Your task to perform on an android device: Open calendar and show me the third week of next month Image 0: 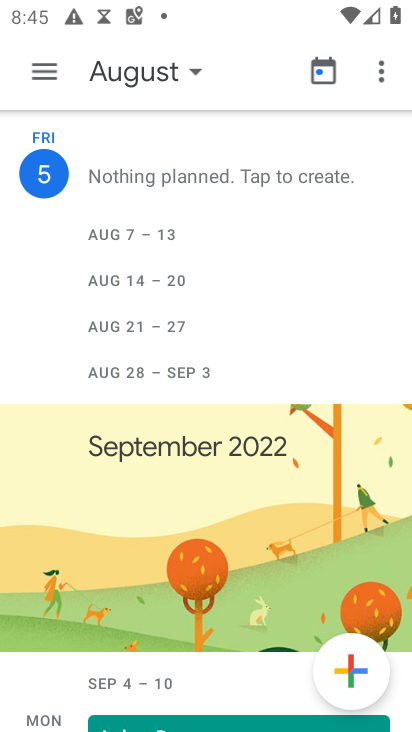
Step 0: press home button
Your task to perform on an android device: Open calendar and show me the third week of next month Image 1: 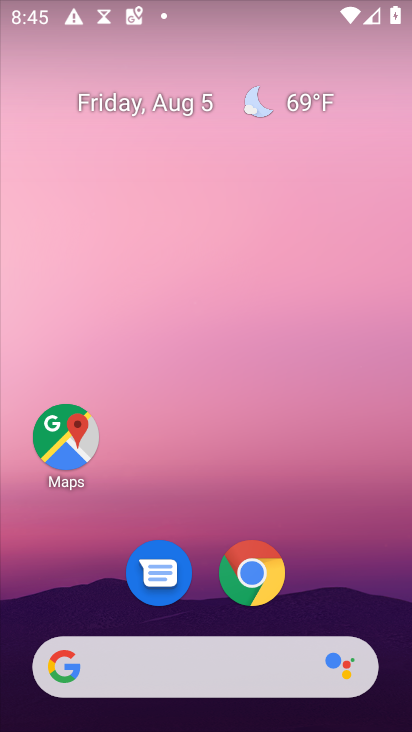
Step 1: drag from (215, 663) to (229, 173)
Your task to perform on an android device: Open calendar and show me the third week of next month Image 2: 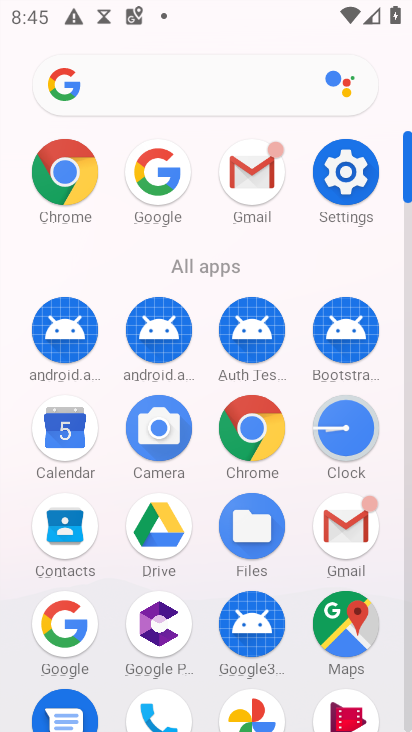
Step 2: click (68, 432)
Your task to perform on an android device: Open calendar and show me the third week of next month Image 3: 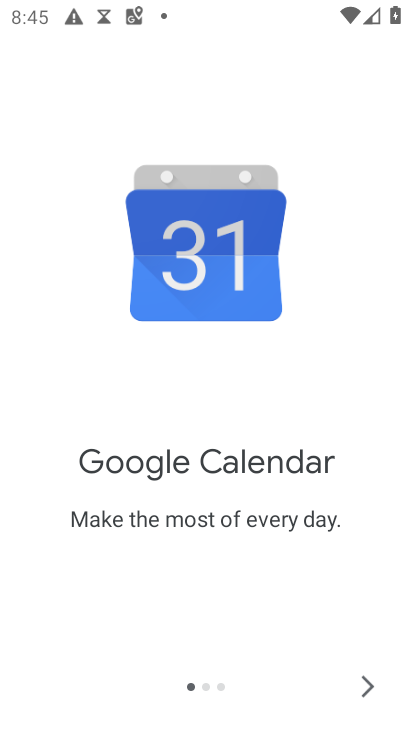
Step 3: click (371, 687)
Your task to perform on an android device: Open calendar and show me the third week of next month Image 4: 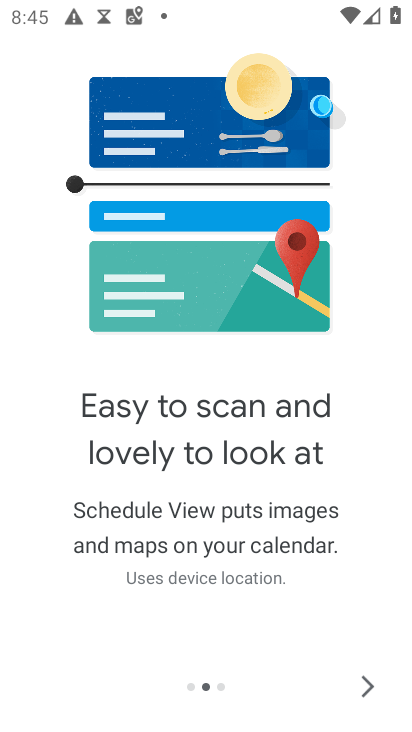
Step 4: click (371, 687)
Your task to perform on an android device: Open calendar and show me the third week of next month Image 5: 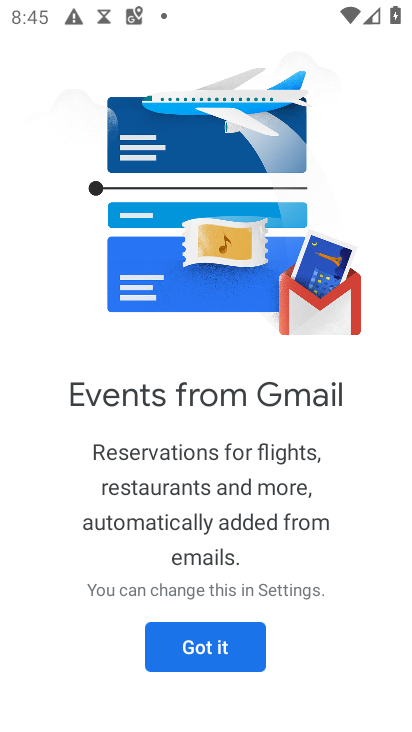
Step 5: click (209, 641)
Your task to perform on an android device: Open calendar and show me the third week of next month Image 6: 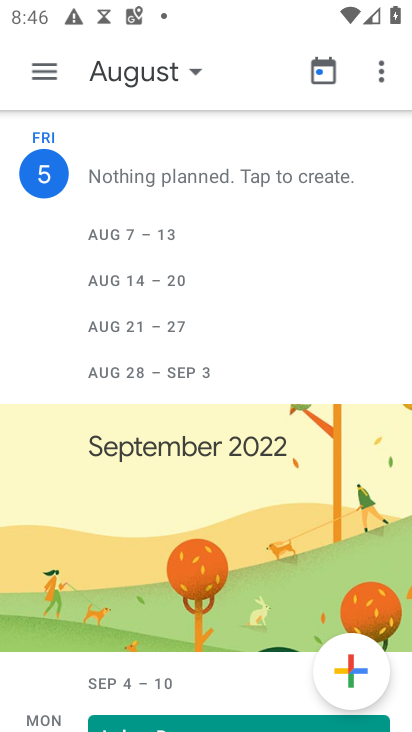
Step 6: click (200, 72)
Your task to perform on an android device: Open calendar and show me the third week of next month Image 7: 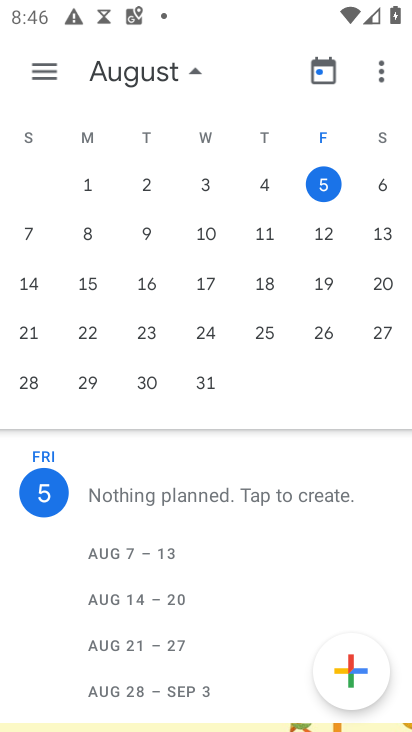
Step 7: drag from (372, 308) to (5, 362)
Your task to perform on an android device: Open calendar and show me the third week of next month Image 8: 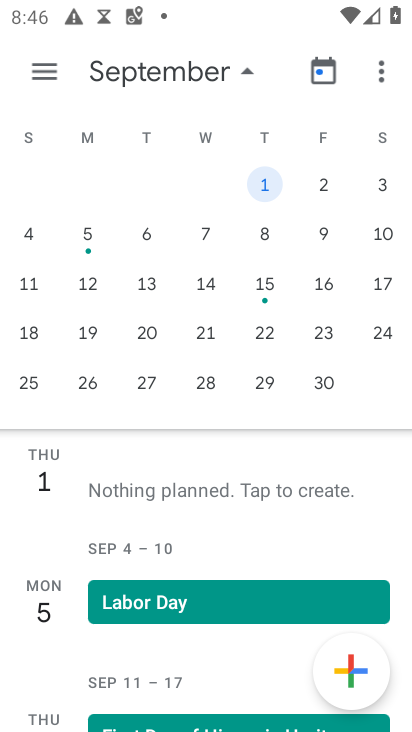
Step 8: click (96, 334)
Your task to perform on an android device: Open calendar and show me the third week of next month Image 9: 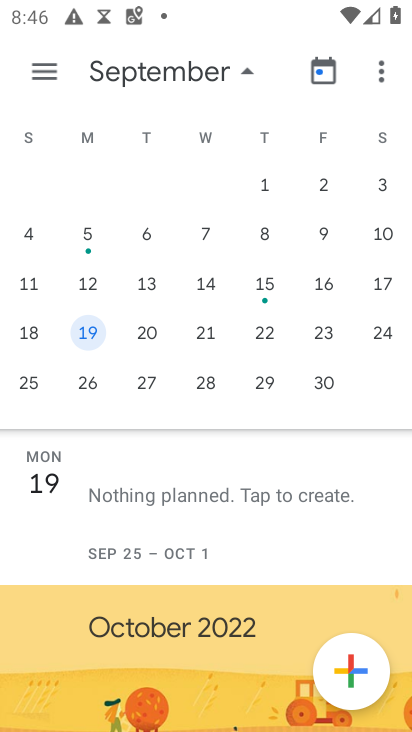
Step 9: click (47, 75)
Your task to perform on an android device: Open calendar and show me the third week of next month Image 10: 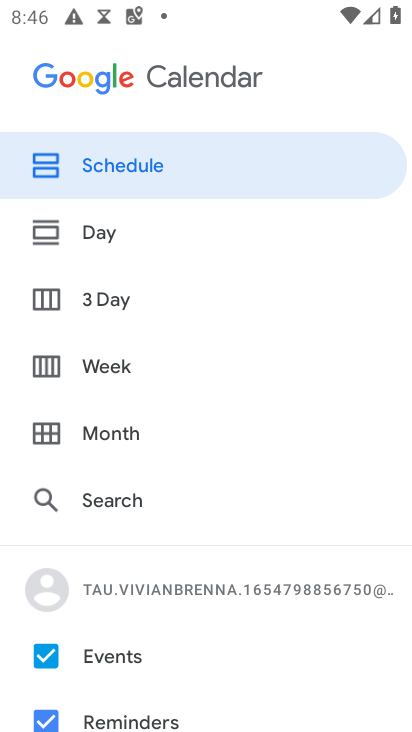
Step 10: click (98, 365)
Your task to perform on an android device: Open calendar and show me the third week of next month Image 11: 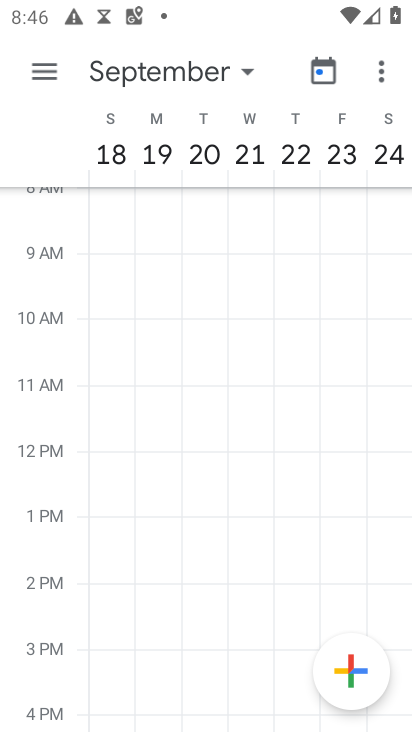
Step 11: task complete